Your task to perform on an android device: toggle location history Image 0: 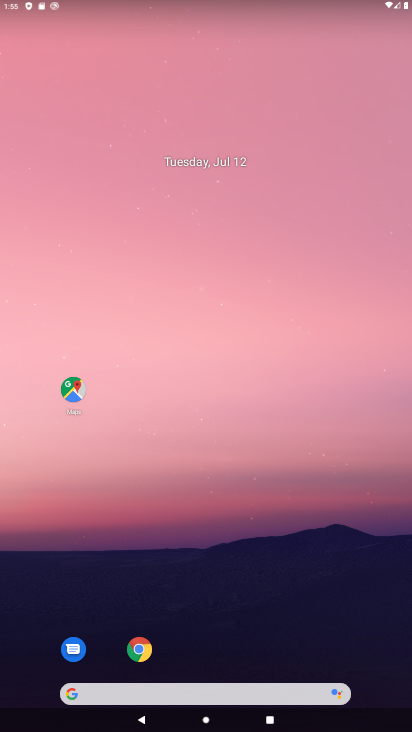
Step 0: drag from (235, 642) to (253, 77)
Your task to perform on an android device: toggle location history Image 1: 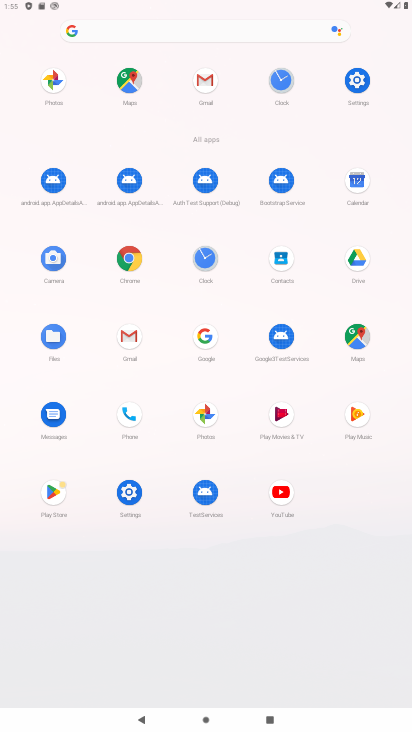
Step 1: click (129, 495)
Your task to perform on an android device: toggle location history Image 2: 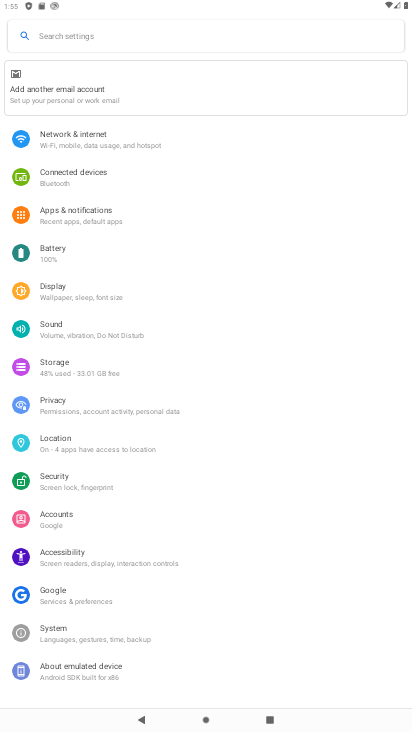
Step 2: click (66, 443)
Your task to perform on an android device: toggle location history Image 3: 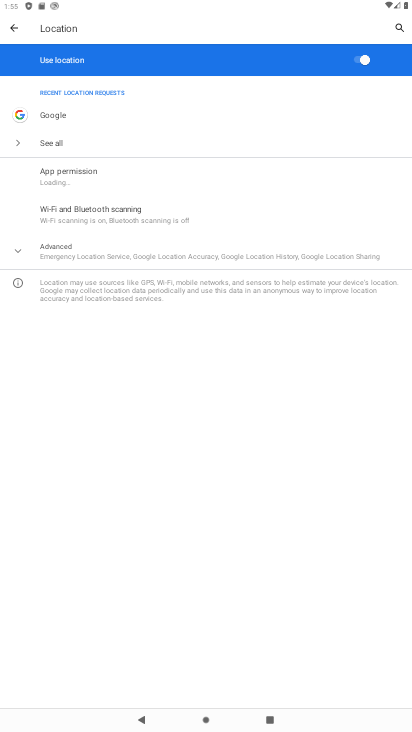
Step 3: click (59, 249)
Your task to perform on an android device: toggle location history Image 4: 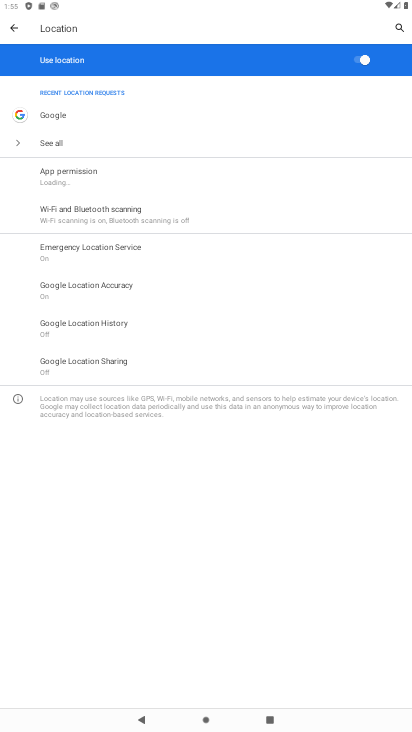
Step 4: click (108, 324)
Your task to perform on an android device: toggle location history Image 5: 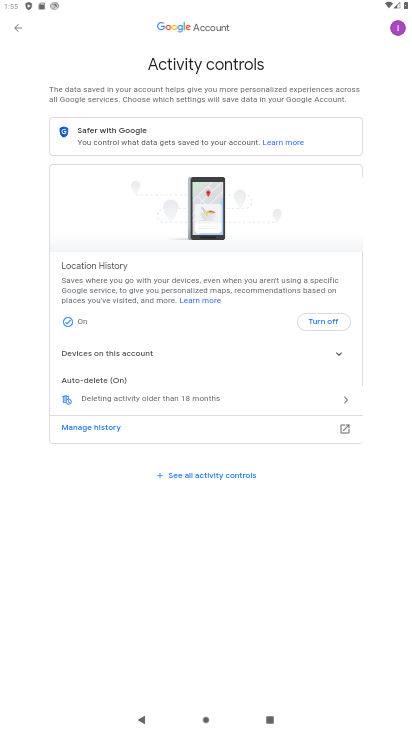
Step 5: click (326, 320)
Your task to perform on an android device: toggle location history Image 6: 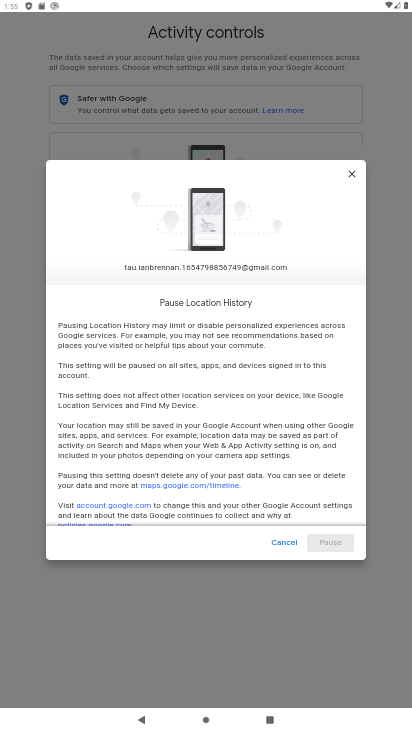
Step 6: drag from (319, 482) to (300, 234)
Your task to perform on an android device: toggle location history Image 7: 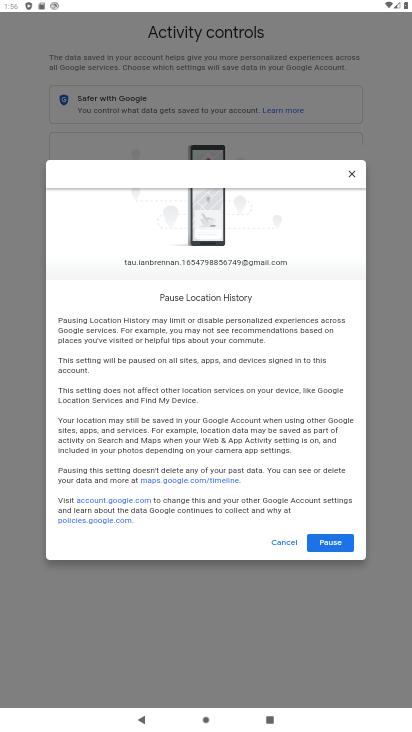
Step 7: click (330, 543)
Your task to perform on an android device: toggle location history Image 8: 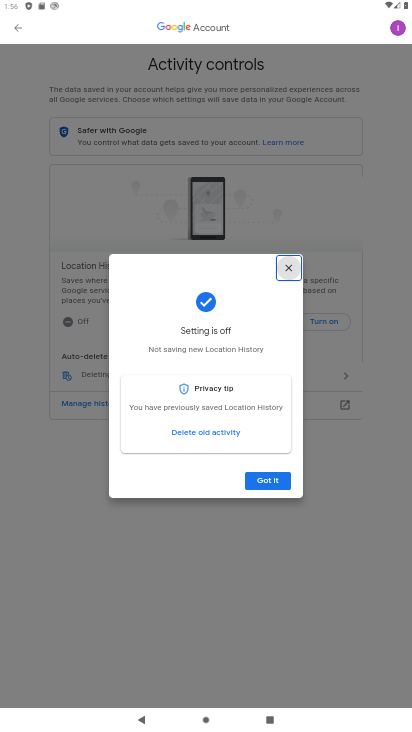
Step 8: click (263, 482)
Your task to perform on an android device: toggle location history Image 9: 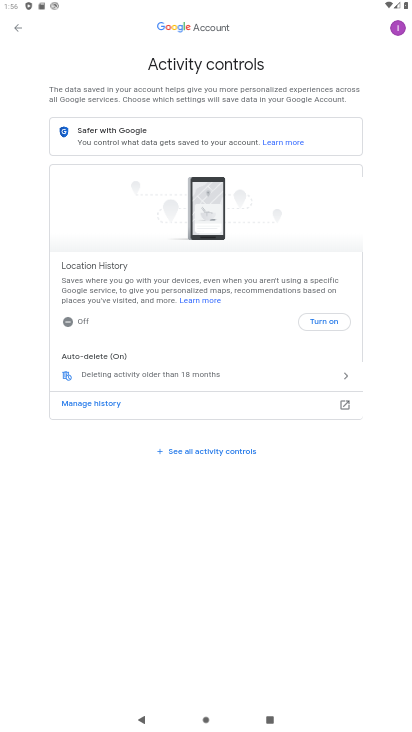
Step 9: task complete